Your task to perform on an android device: Set the phone to "Do not disturb". Image 0: 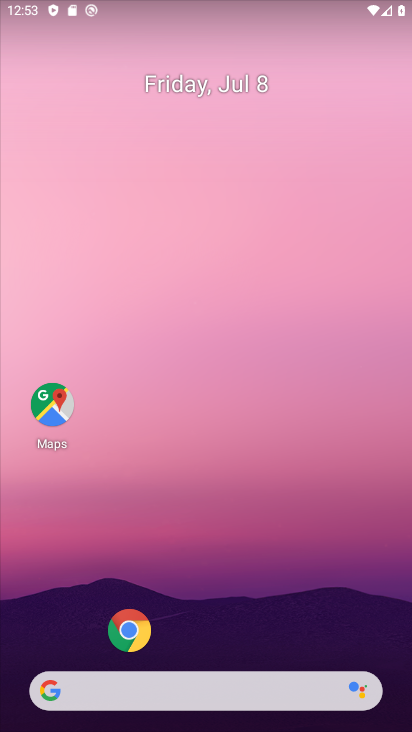
Step 0: drag from (312, 702) to (249, 18)
Your task to perform on an android device: Set the phone to "Do not disturb". Image 1: 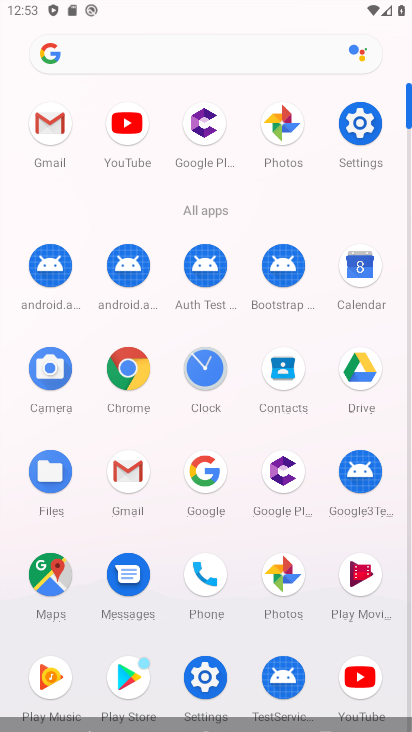
Step 1: click (368, 114)
Your task to perform on an android device: Set the phone to "Do not disturb". Image 2: 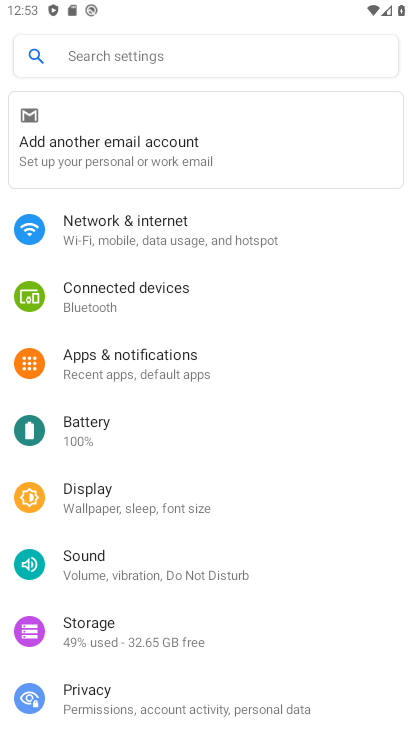
Step 2: click (154, 549)
Your task to perform on an android device: Set the phone to "Do not disturb". Image 3: 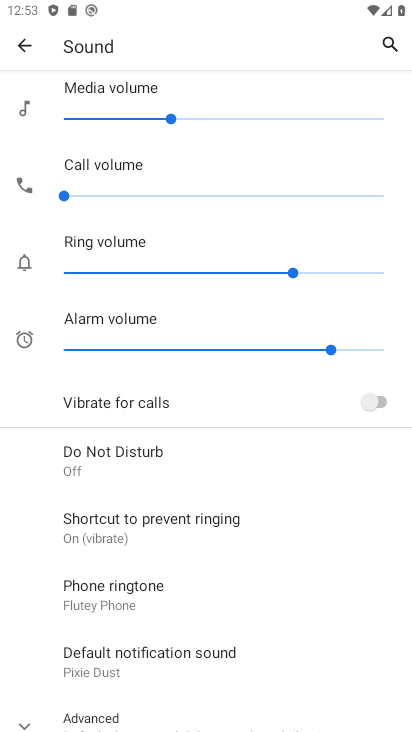
Step 3: click (165, 445)
Your task to perform on an android device: Set the phone to "Do not disturb". Image 4: 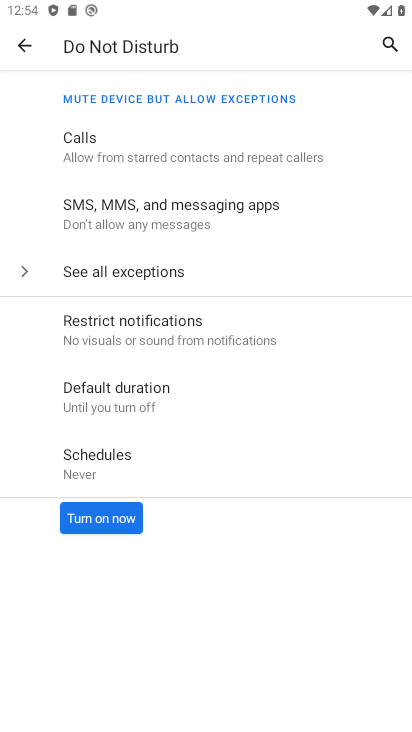
Step 4: click (135, 519)
Your task to perform on an android device: Set the phone to "Do not disturb". Image 5: 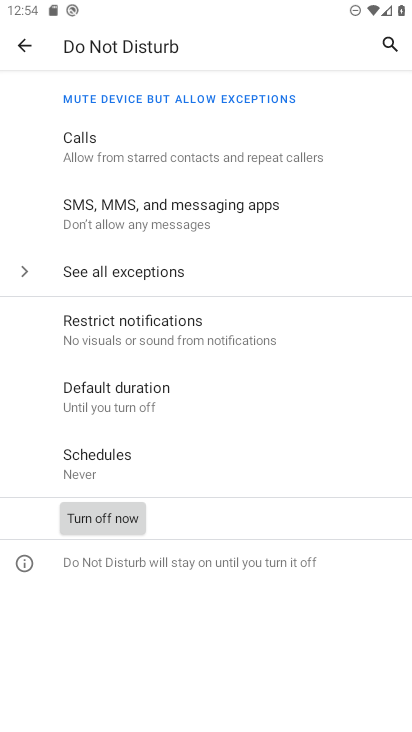
Step 5: press home button
Your task to perform on an android device: Set the phone to "Do not disturb". Image 6: 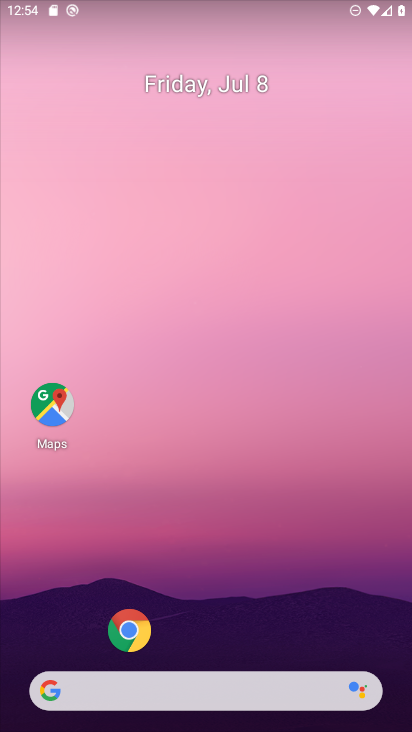
Step 6: drag from (262, 679) to (274, 59)
Your task to perform on an android device: Set the phone to "Do not disturb". Image 7: 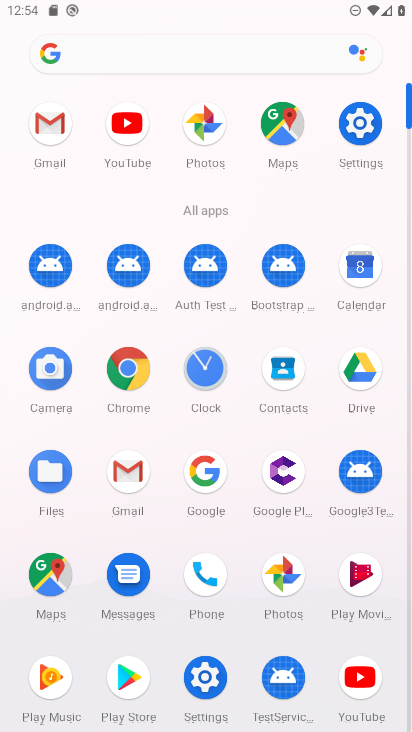
Step 7: click (359, 136)
Your task to perform on an android device: Set the phone to "Do not disturb". Image 8: 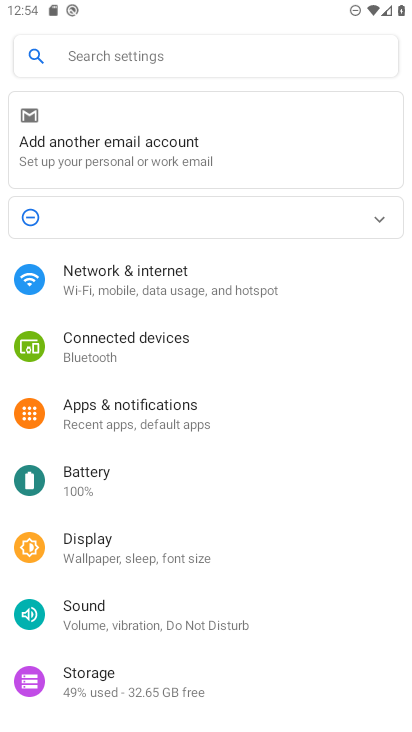
Step 8: click (122, 608)
Your task to perform on an android device: Set the phone to "Do not disturb". Image 9: 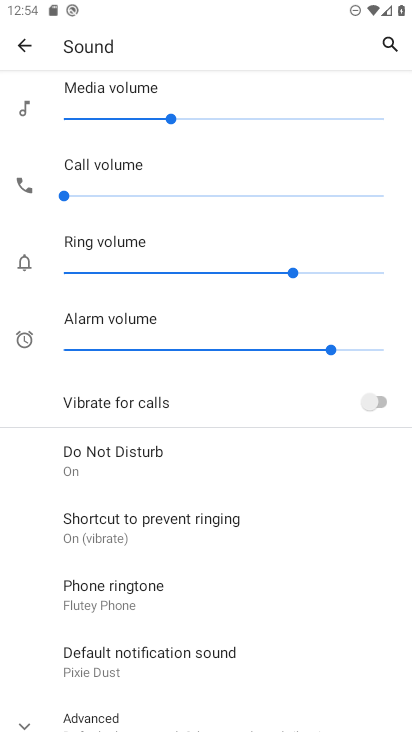
Step 9: click (95, 459)
Your task to perform on an android device: Set the phone to "Do not disturb". Image 10: 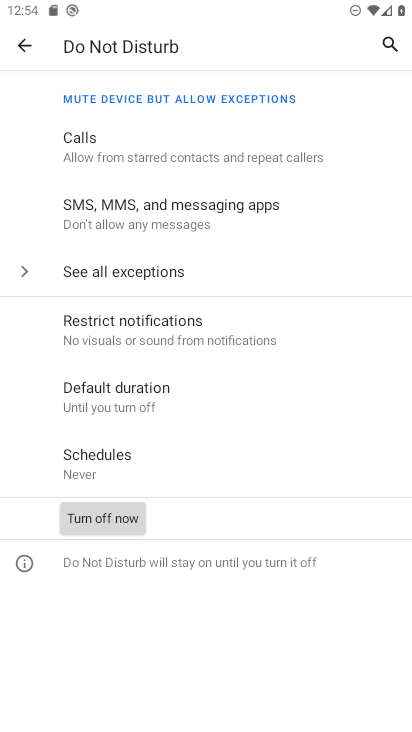
Step 10: task complete